Your task to perform on an android device: open app "Adobe Express: Graphic Design" (install if not already installed) and go to login screen Image 0: 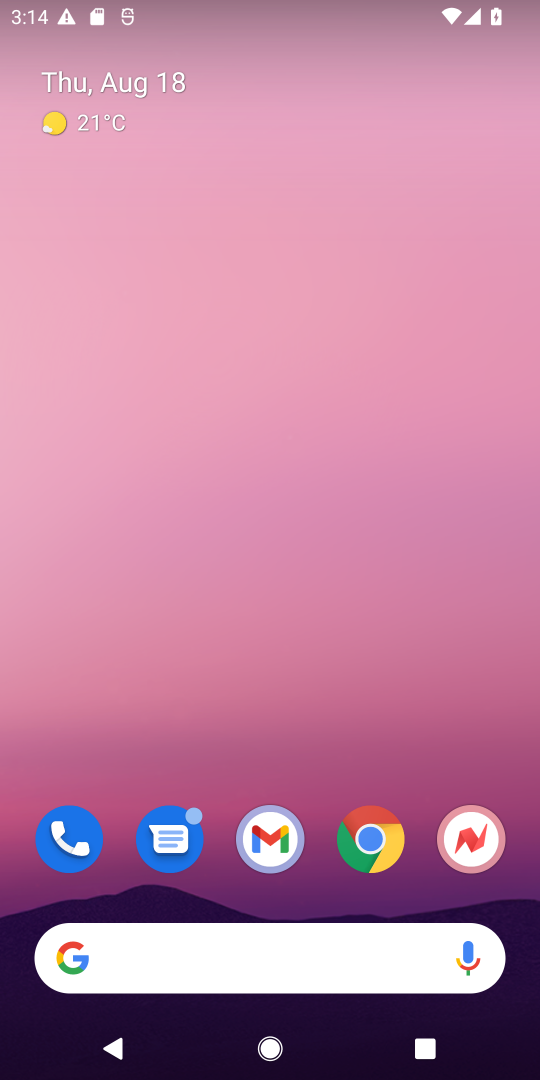
Step 0: drag from (290, 917) to (501, 237)
Your task to perform on an android device: open app "Adobe Express: Graphic Design" (install if not already installed) and go to login screen Image 1: 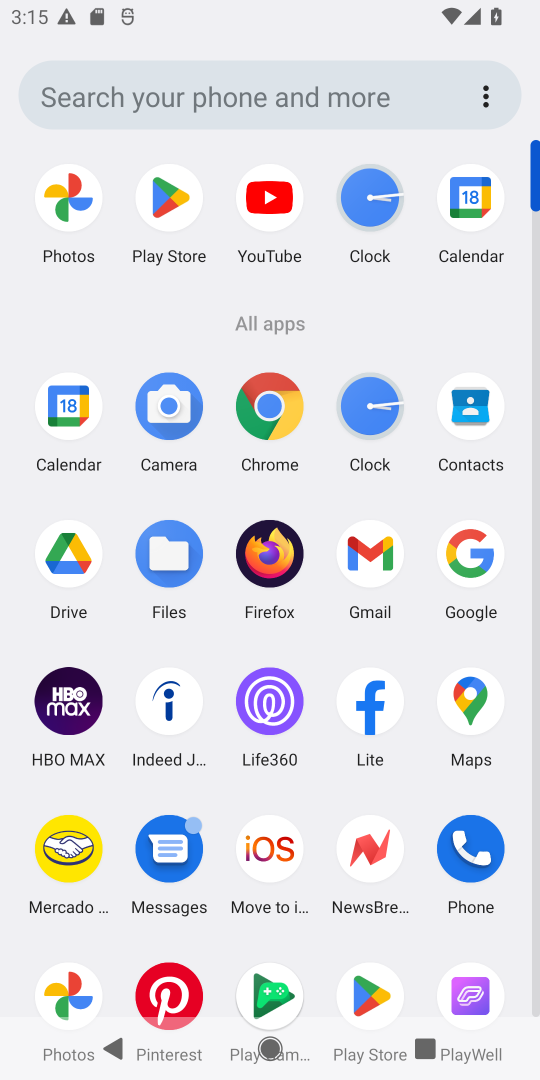
Step 1: click (145, 197)
Your task to perform on an android device: open app "Adobe Express: Graphic Design" (install if not already installed) and go to login screen Image 2: 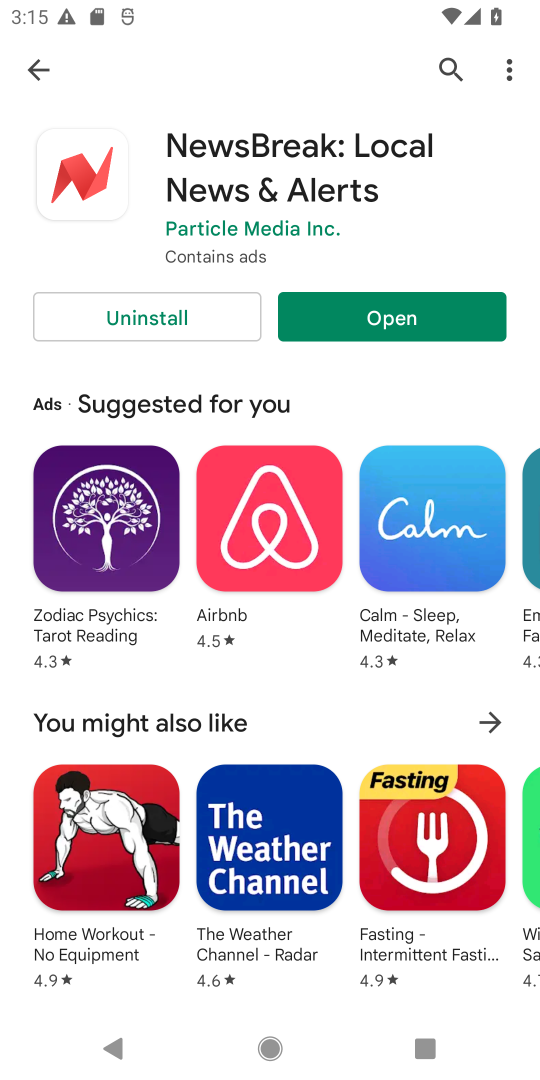
Step 2: click (34, 75)
Your task to perform on an android device: open app "Adobe Express: Graphic Design" (install if not already installed) and go to login screen Image 3: 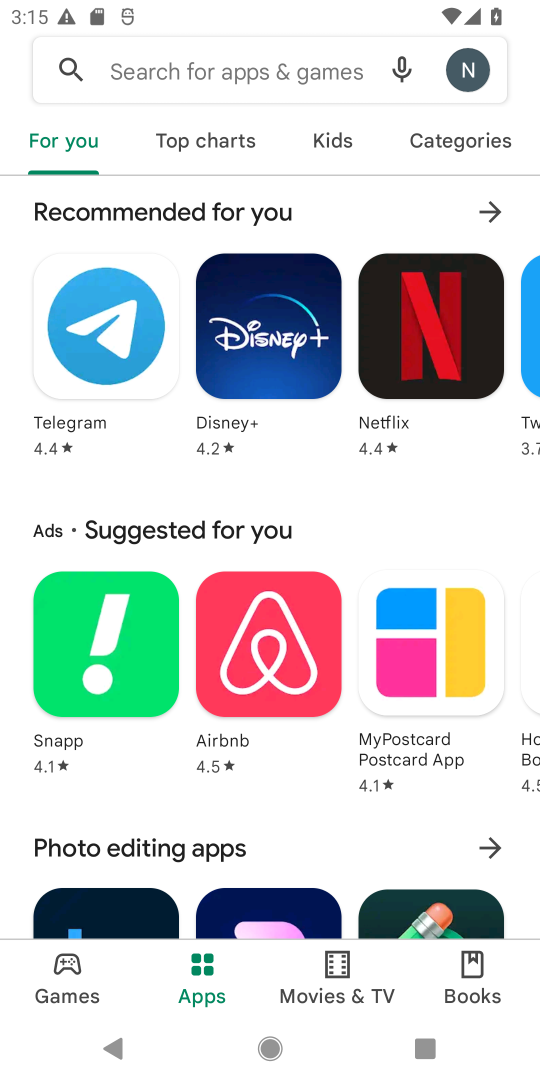
Step 3: click (316, 66)
Your task to perform on an android device: open app "Adobe Express: Graphic Design" (install if not already installed) and go to login screen Image 4: 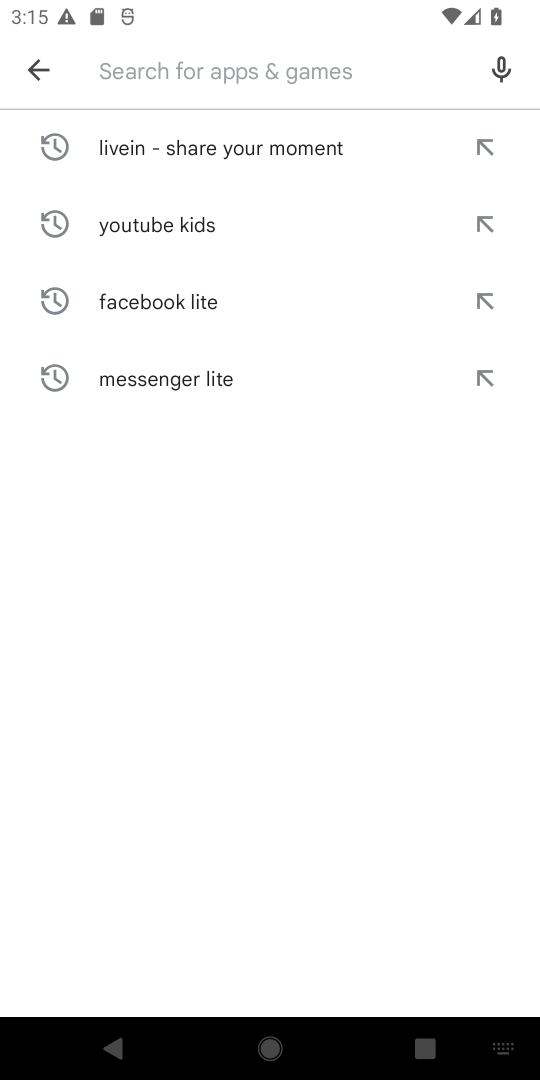
Step 4: type "Adobe Express: Graphic Design"
Your task to perform on an android device: open app "Adobe Express: Graphic Design" (install if not already installed) and go to login screen Image 5: 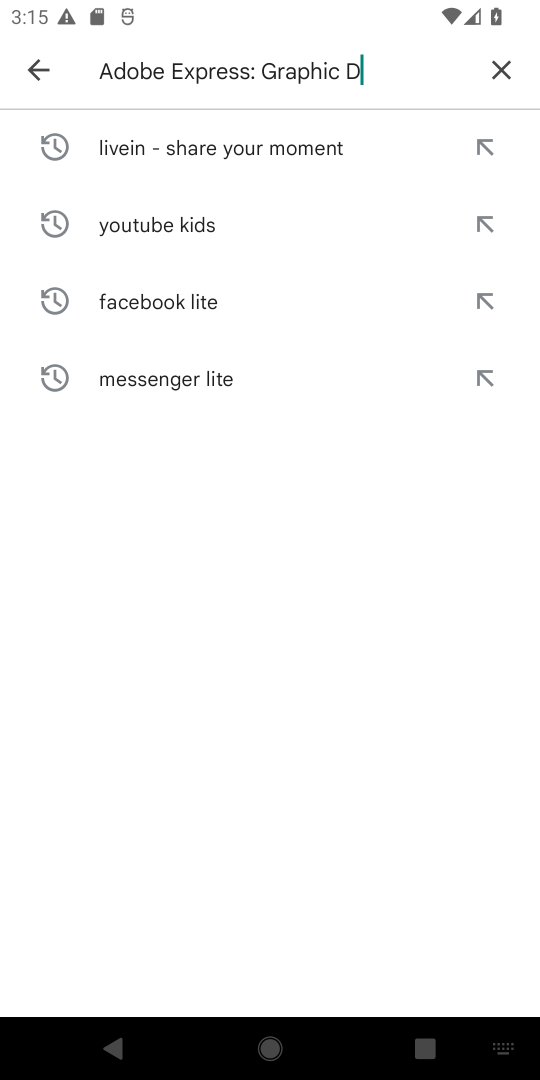
Step 5: type ""
Your task to perform on an android device: open app "Adobe Express: Graphic Design" (install if not already installed) and go to login screen Image 6: 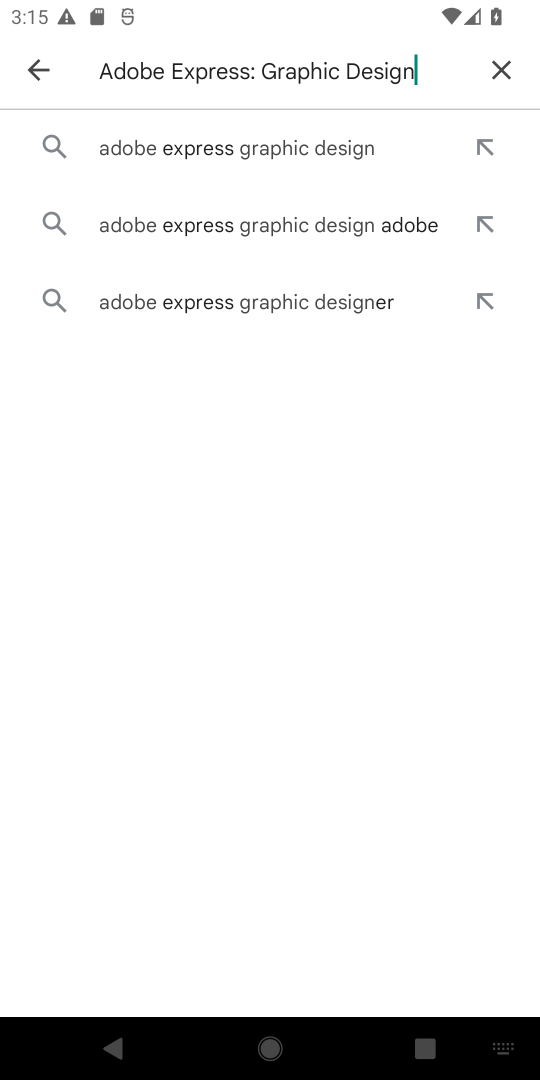
Step 6: click (270, 158)
Your task to perform on an android device: open app "Adobe Express: Graphic Design" (install if not already installed) and go to login screen Image 7: 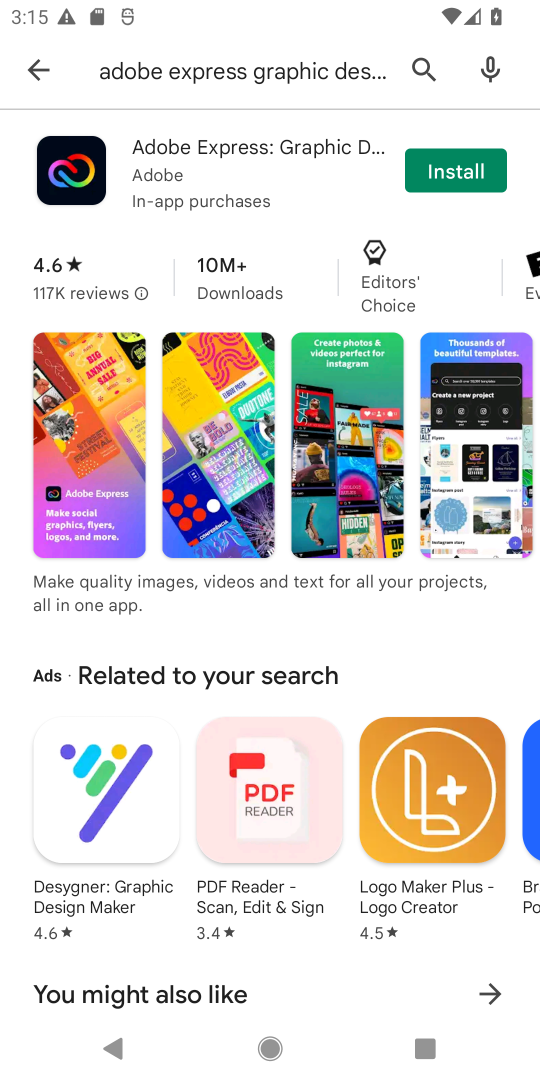
Step 7: click (438, 174)
Your task to perform on an android device: open app "Adobe Express: Graphic Design" (install if not already installed) and go to login screen Image 8: 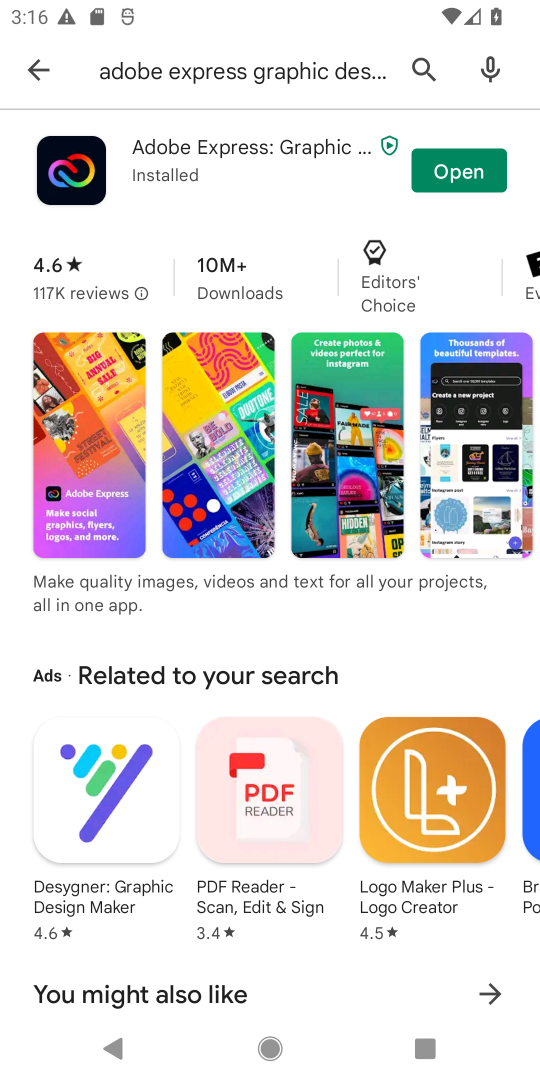
Step 8: click (431, 174)
Your task to perform on an android device: open app "Adobe Express: Graphic Design" (install if not already installed) and go to login screen Image 9: 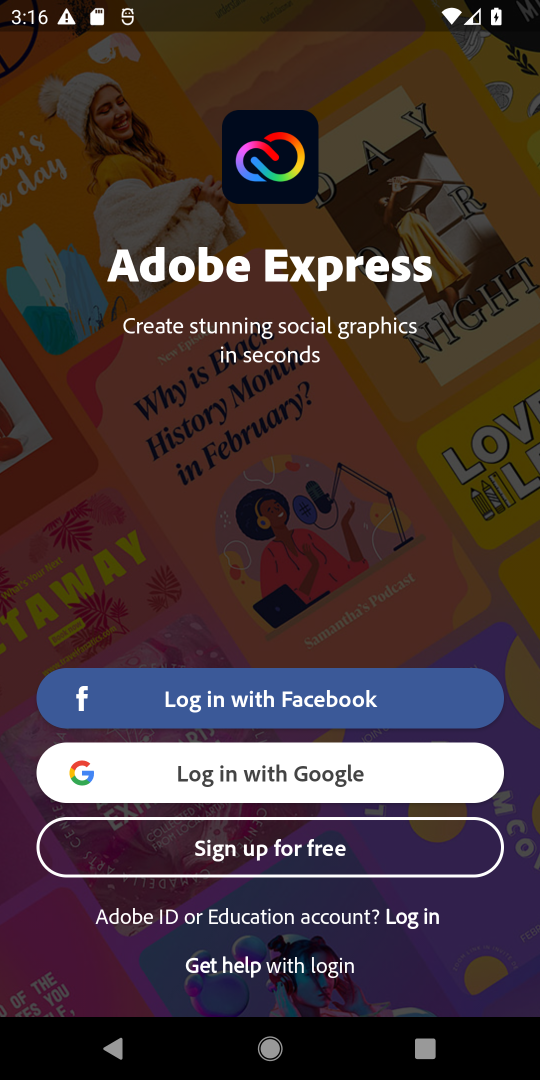
Step 9: click (406, 913)
Your task to perform on an android device: open app "Adobe Express: Graphic Design" (install if not already installed) and go to login screen Image 10: 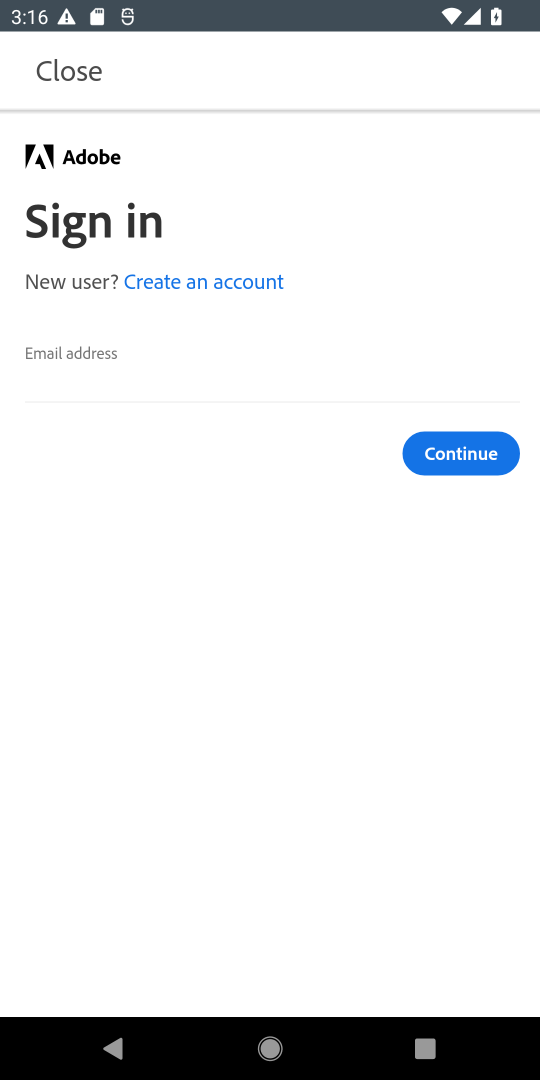
Step 10: task complete